Your task to perform on an android device: Go to eBay Image 0: 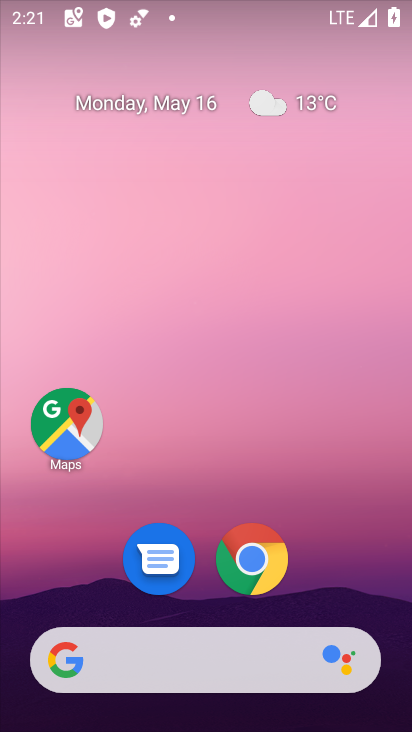
Step 0: click (278, 553)
Your task to perform on an android device: Go to eBay Image 1: 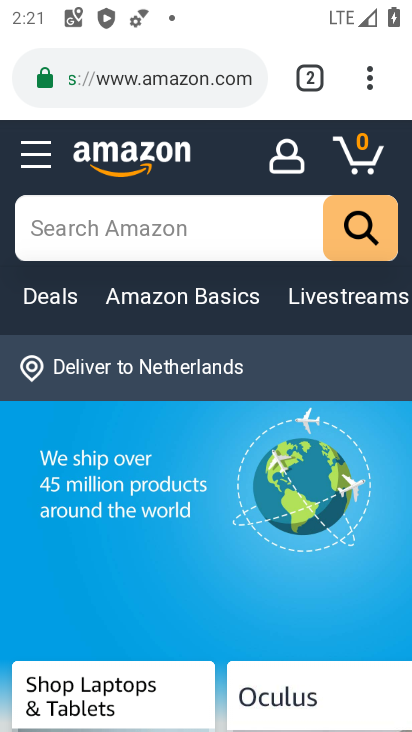
Step 1: click (313, 75)
Your task to perform on an android device: Go to eBay Image 2: 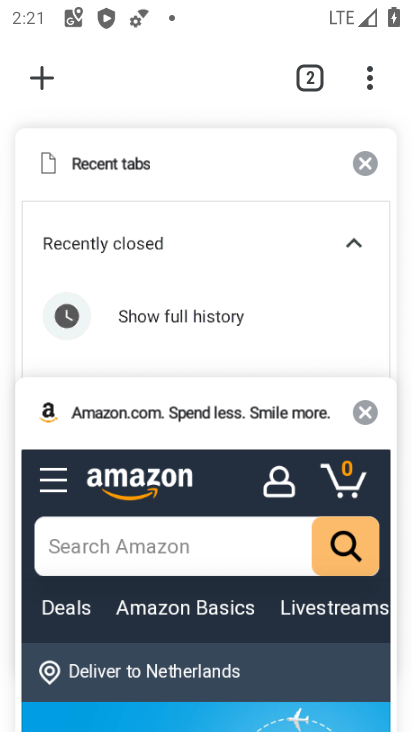
Step 2: click (44, 76)
Your task to perform on an android device: Go to eBay Image 3: 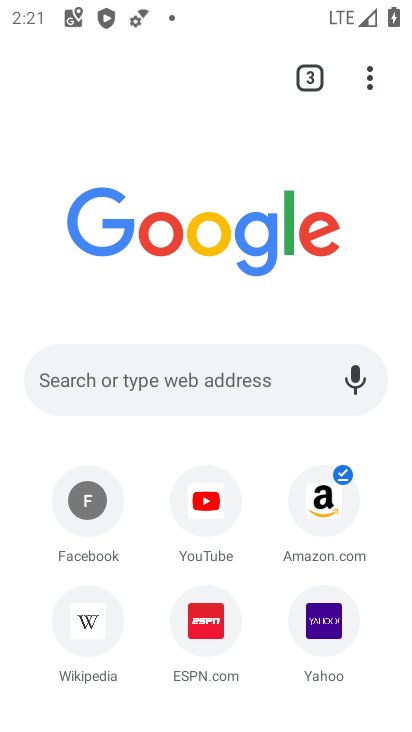
Step 3: click (112, 384)
Your task to perform on an android device: Go to eBay Image 4: 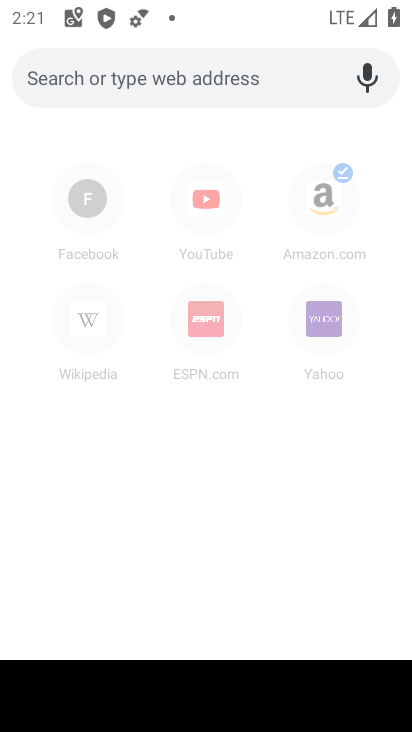
Step 4: click (110, 71)
Your task to perform on an android device: Go to eBay Image 5: 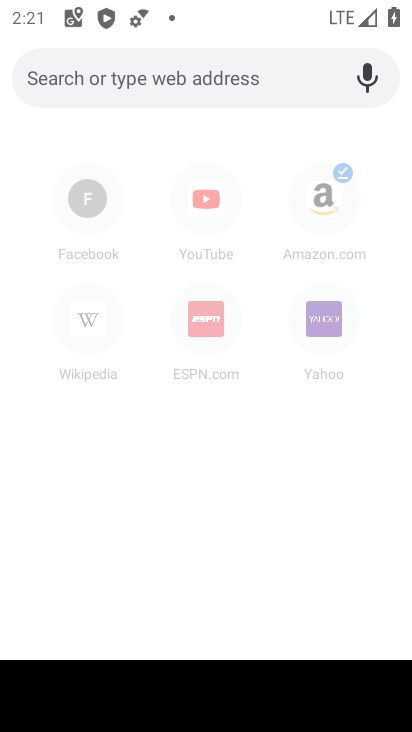
Step 5: type "ebay"
Your task to perform on an android device: Go to eBay Image 6: 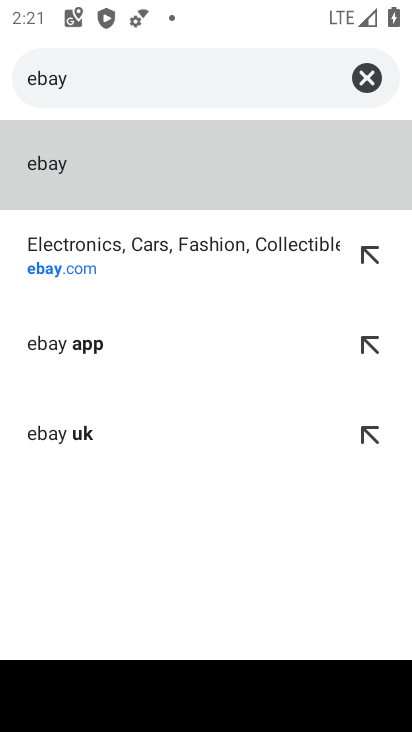
Step 6: click (49, 264)
Your task to perform on an android device: Go to eBay Image 7: 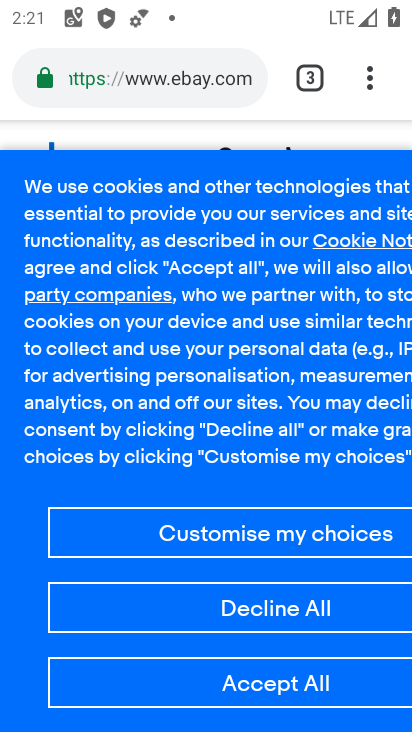
Step 7: task complete